Your task to perform on an android device: Show me popular games on the Play Store Image 0: 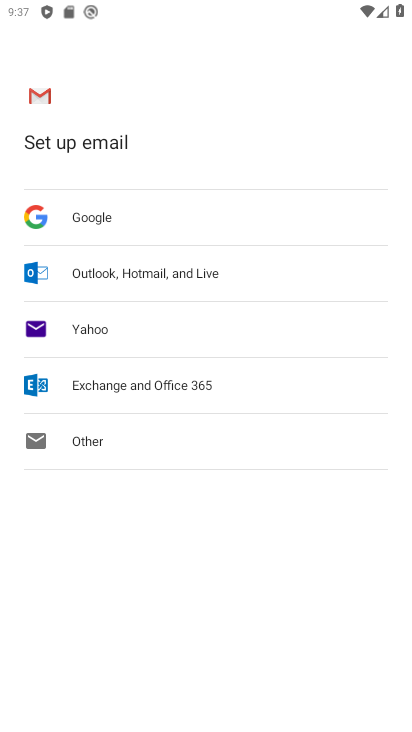
Step 0: press home button
Your task to perform on an android device: Show me popular games on the Play Store Image 1: 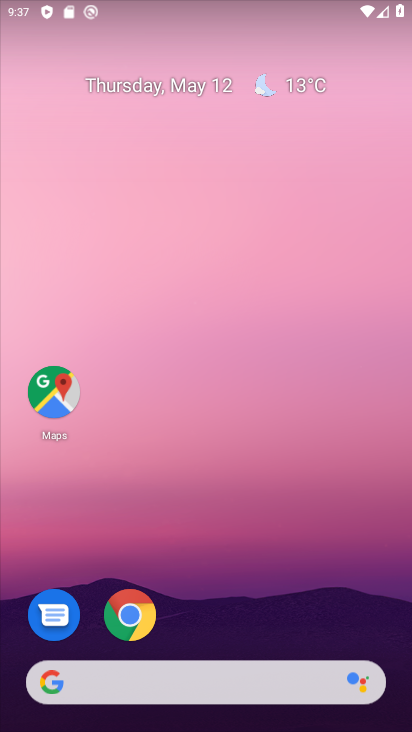
Step 1: drag from (347, 598) to (320, 133)
Your task to perform on an android device: Show me popular games on the Play Store Image 2: 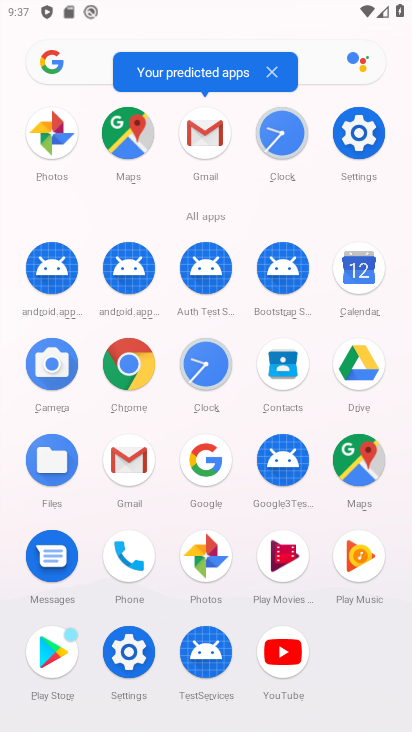
Step 2: drag from (400, 421) to (398, 81)
Your task to perform on an android device: Show me popular games on the Play Store Image 3: 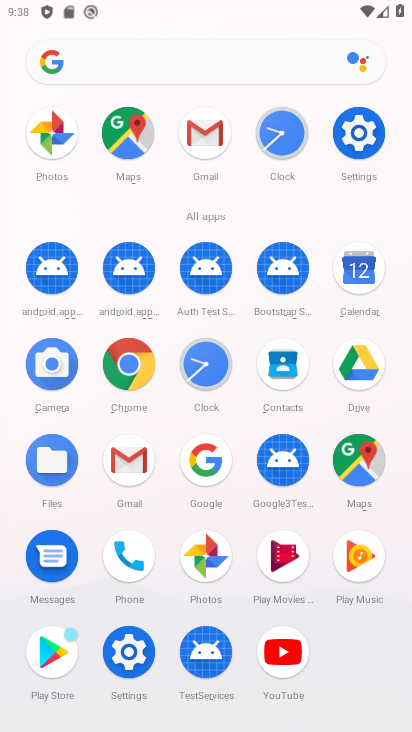
Step 3: click (58, 646)
Your task to perform on an android device: Show me popular games on the Play Store Image 4: 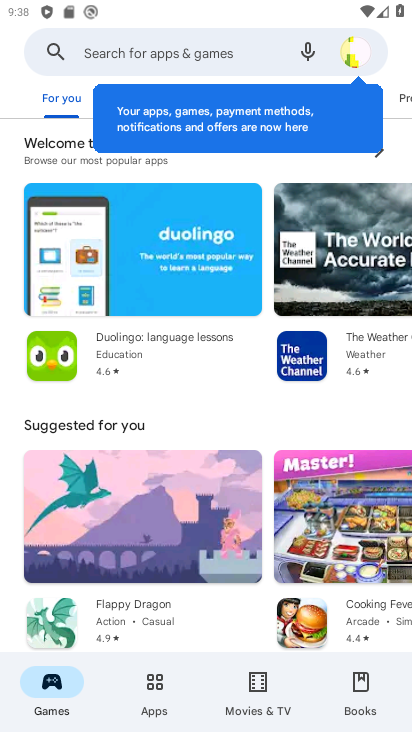
Step 4: click (160, 56)
Your task to perform on an android device: Show me popular games on the Play Store Image 5: 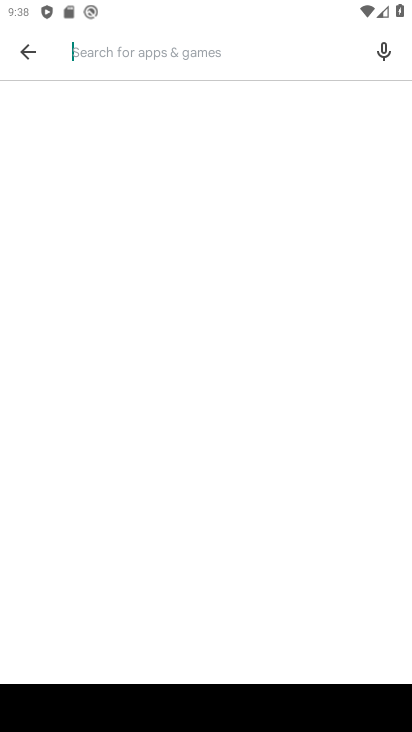
Step 5: type "popular games"
Your task to perform on an android device: Show me popular games on the Play Store Image 6: 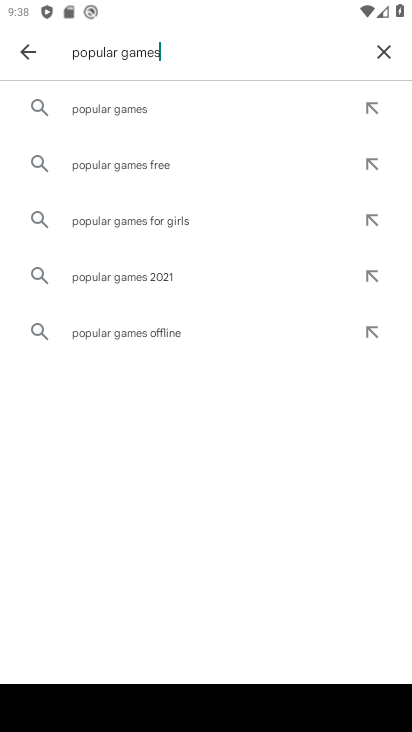
Step 6: click (119, 112)
Your task to perform on an android device: Show me popular games on the Play Store Image 7: 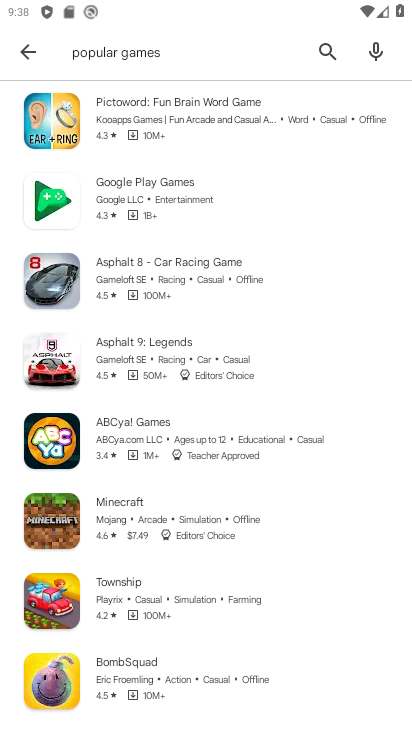
Step 7: task complete